Your task to perform on an android device: Open Google Image 0: 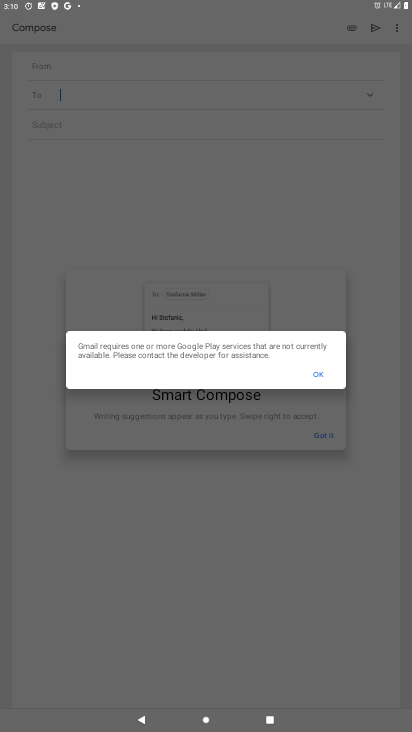
Step 0: press home button
Your task to perform on an android device: Open Google Image 1: 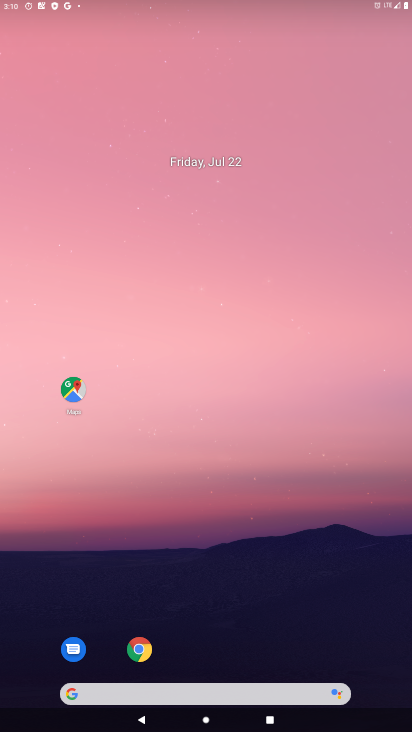
Step 1: drag from (326, 623) to (381, 102)
Your task to perform on an android device: Open Google Image 2: 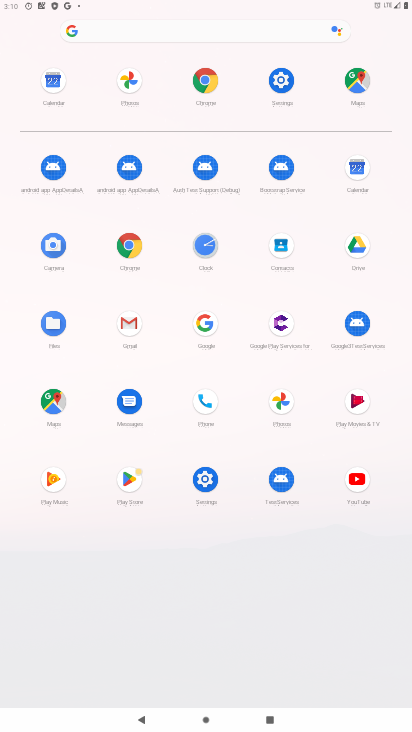
Step 2: click (203, 328)
Your task to perform on an android device: Open Google Image 3: 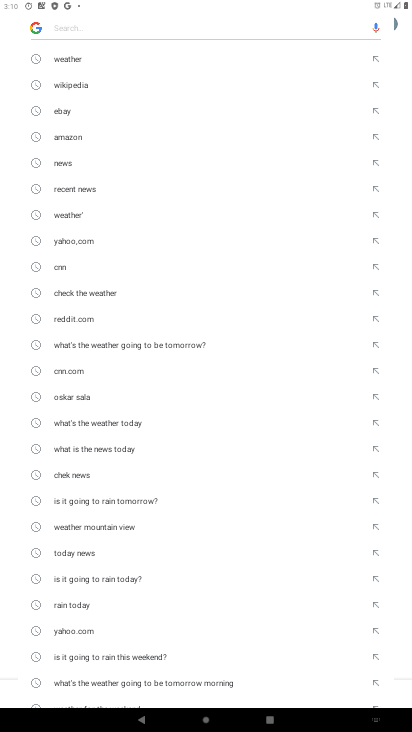
Step 3: task complete